Your task to perform on an android device: toggle show notifications on the lock screen Image 0: 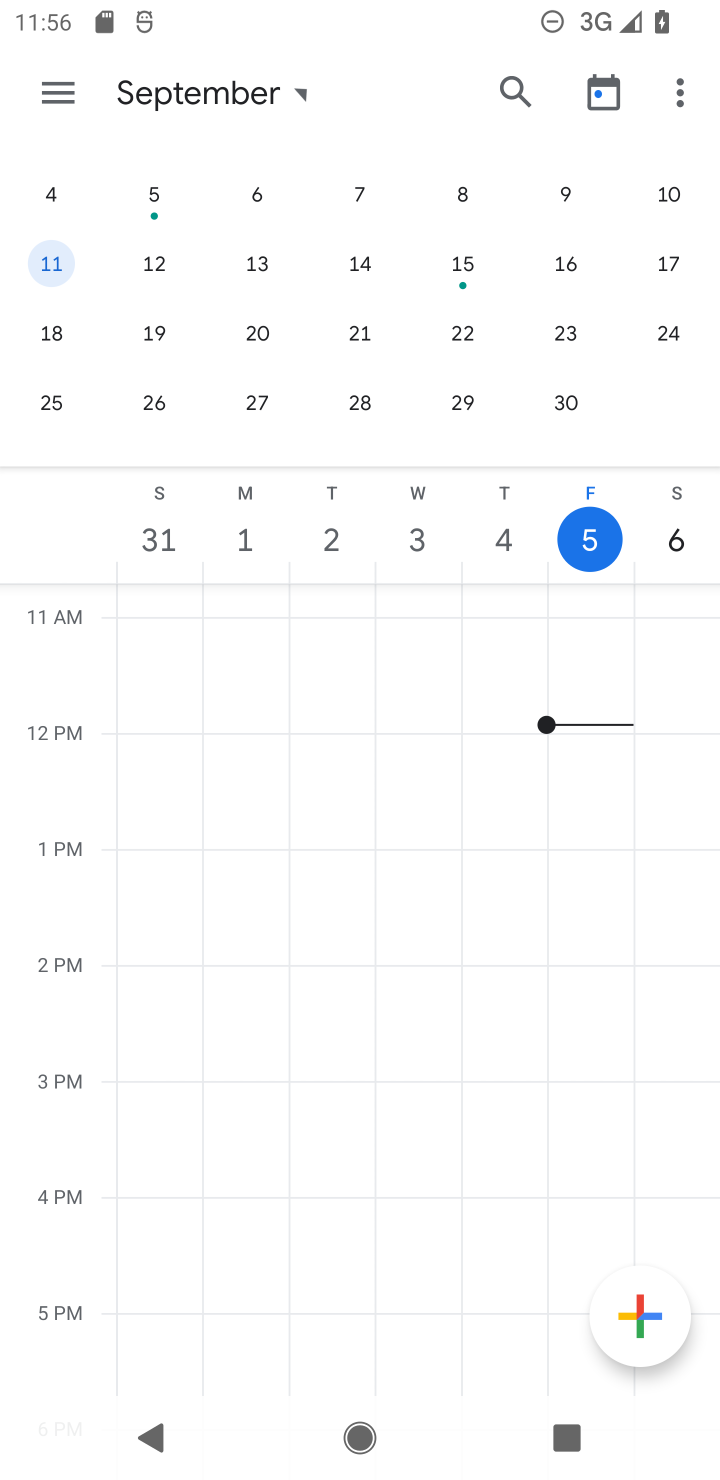
Step 0: press home button
Your task to perform on an android device: toggle show notifications on the lock screen Image 1: 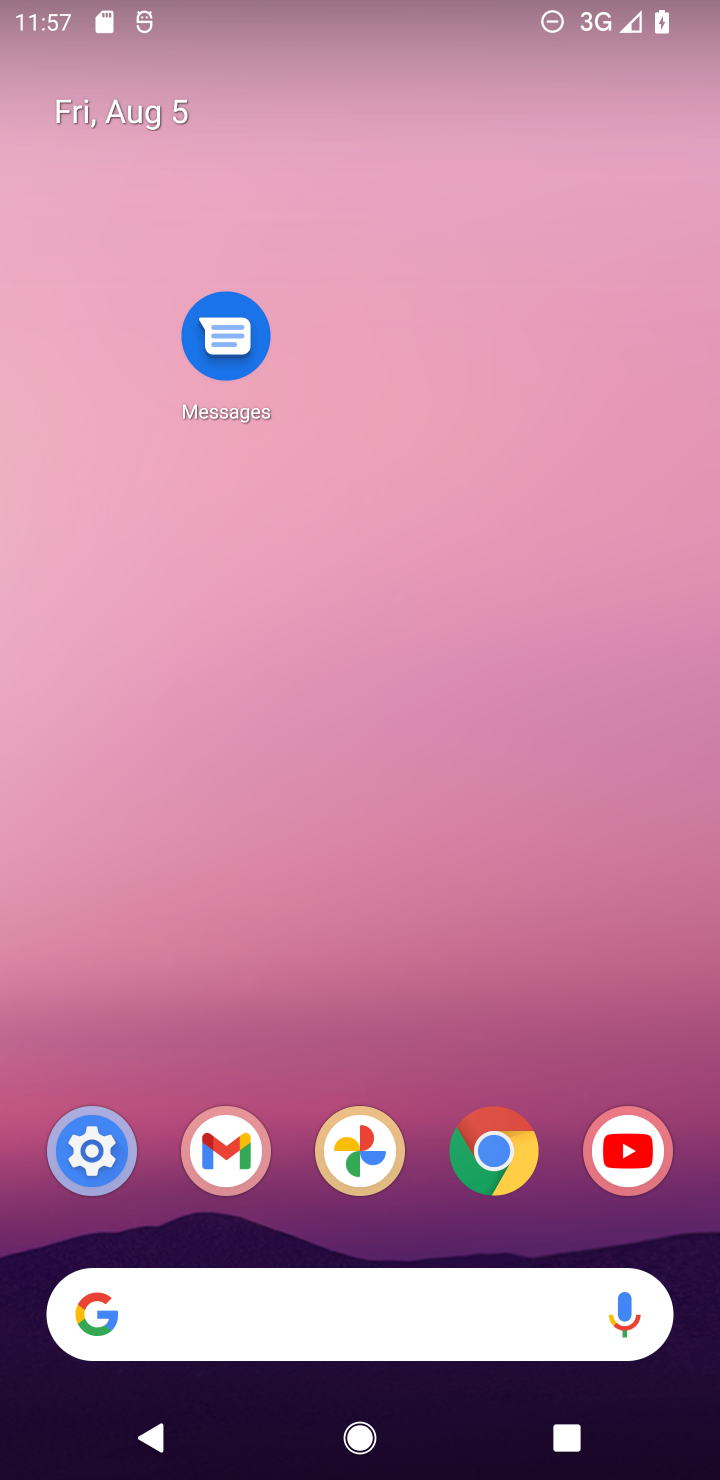
Step 1: click (225, 1187)
Your task to perform on an android device: toggle show notifications on the lock screen Image 2: 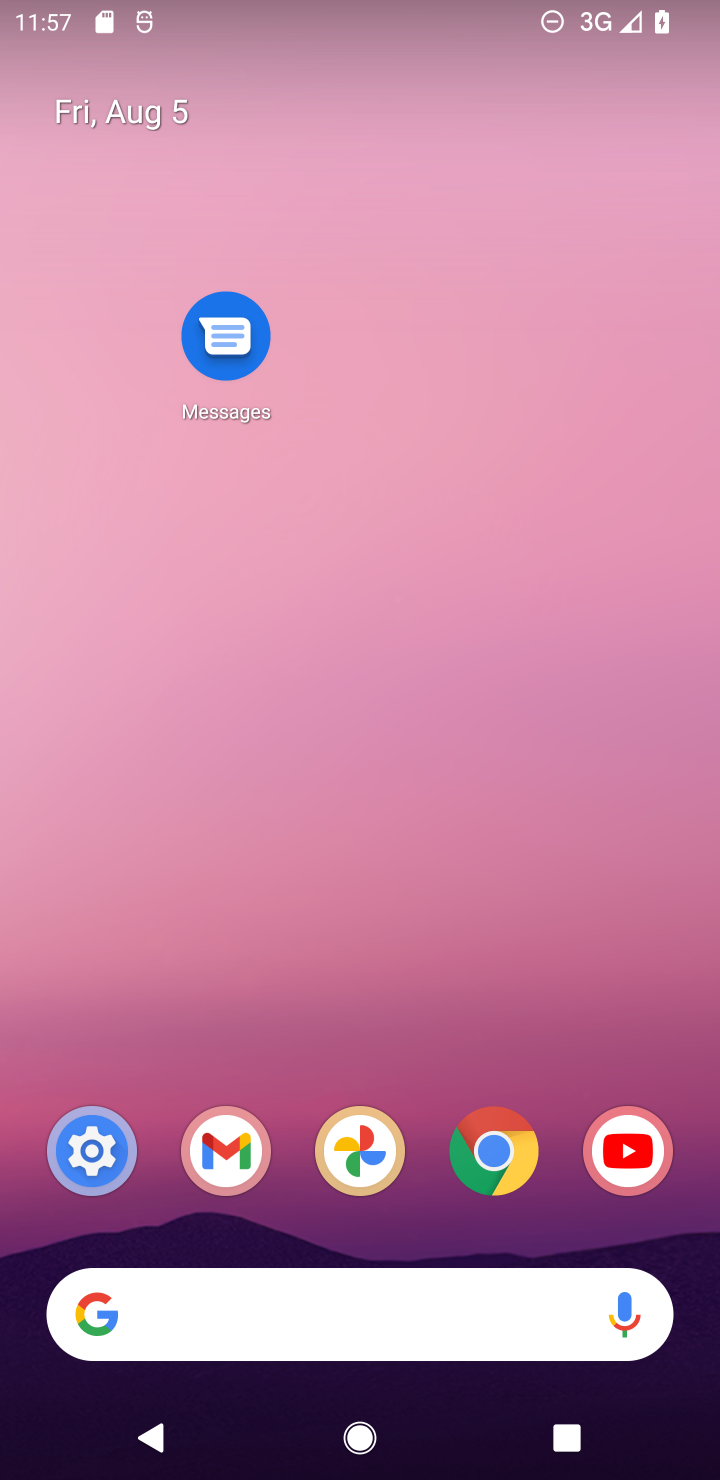
Step 2: click (91, 1159)
Your task to perform on an android device: toggle show notifications on the lock screen Image 3: 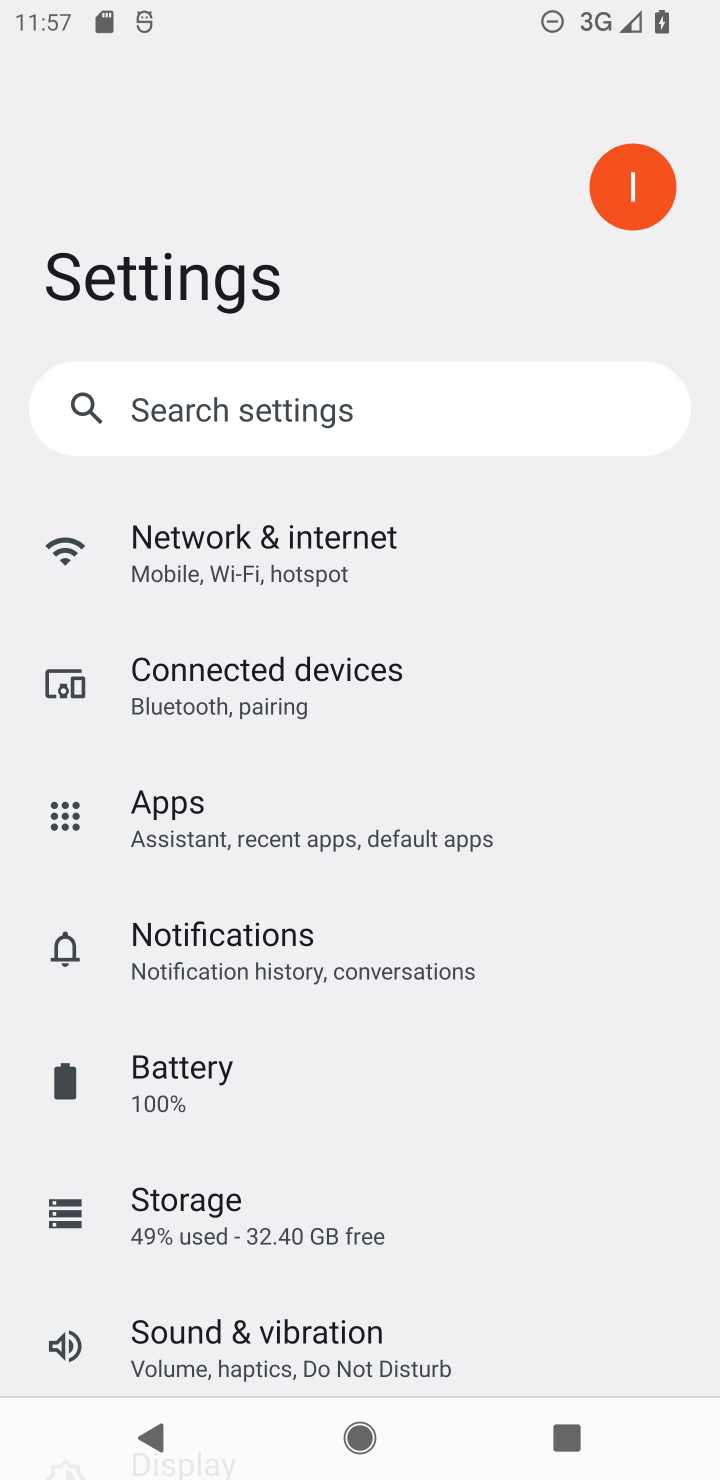
Step 3: click (245, 940)
Your task to perform on an android device: toggle show notifications on the lock screen Image 4: 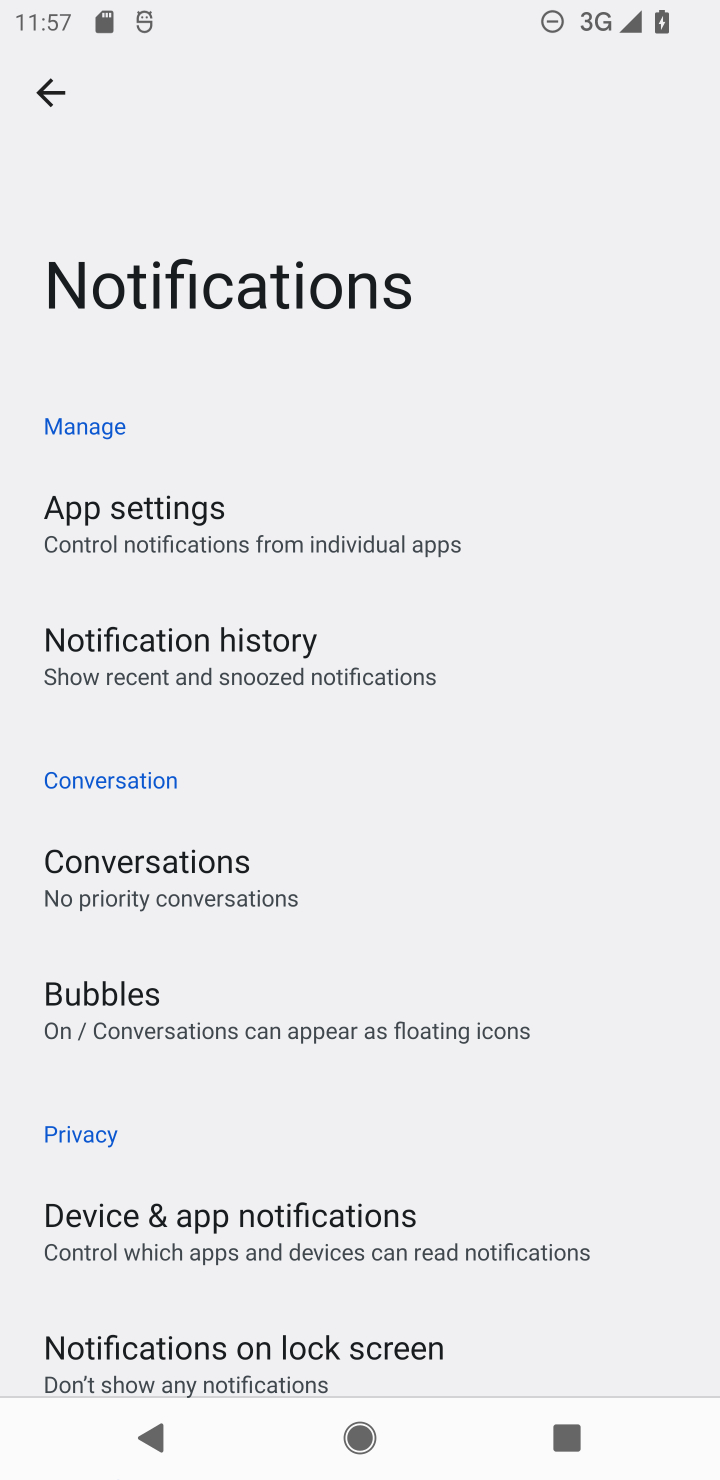
Step 4: click (202, 1347)
Your task to perform on an android device: toggle show notifications on the lock screen Image 5: 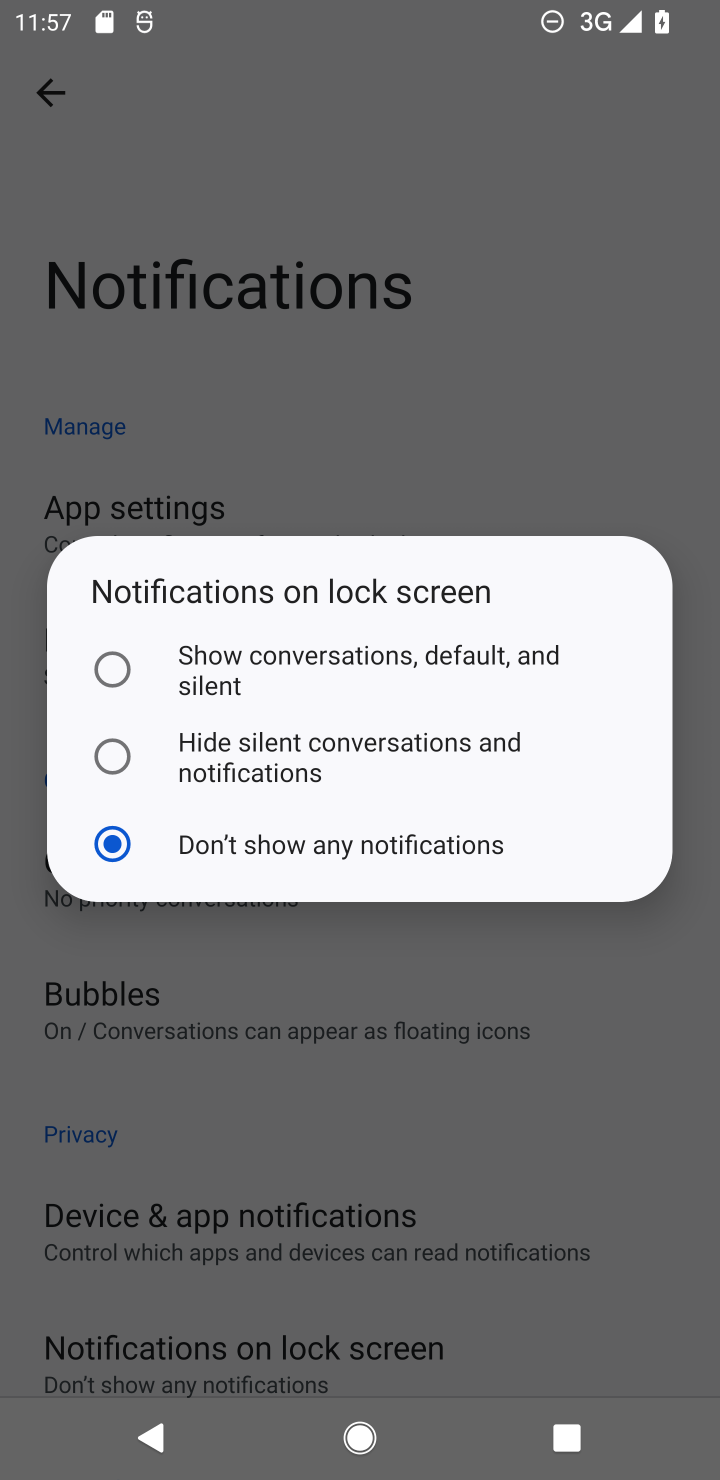
Step 5: click (111, 679)
Your task to perform on an android device: toggle show notifications on the lock screen Image 6: 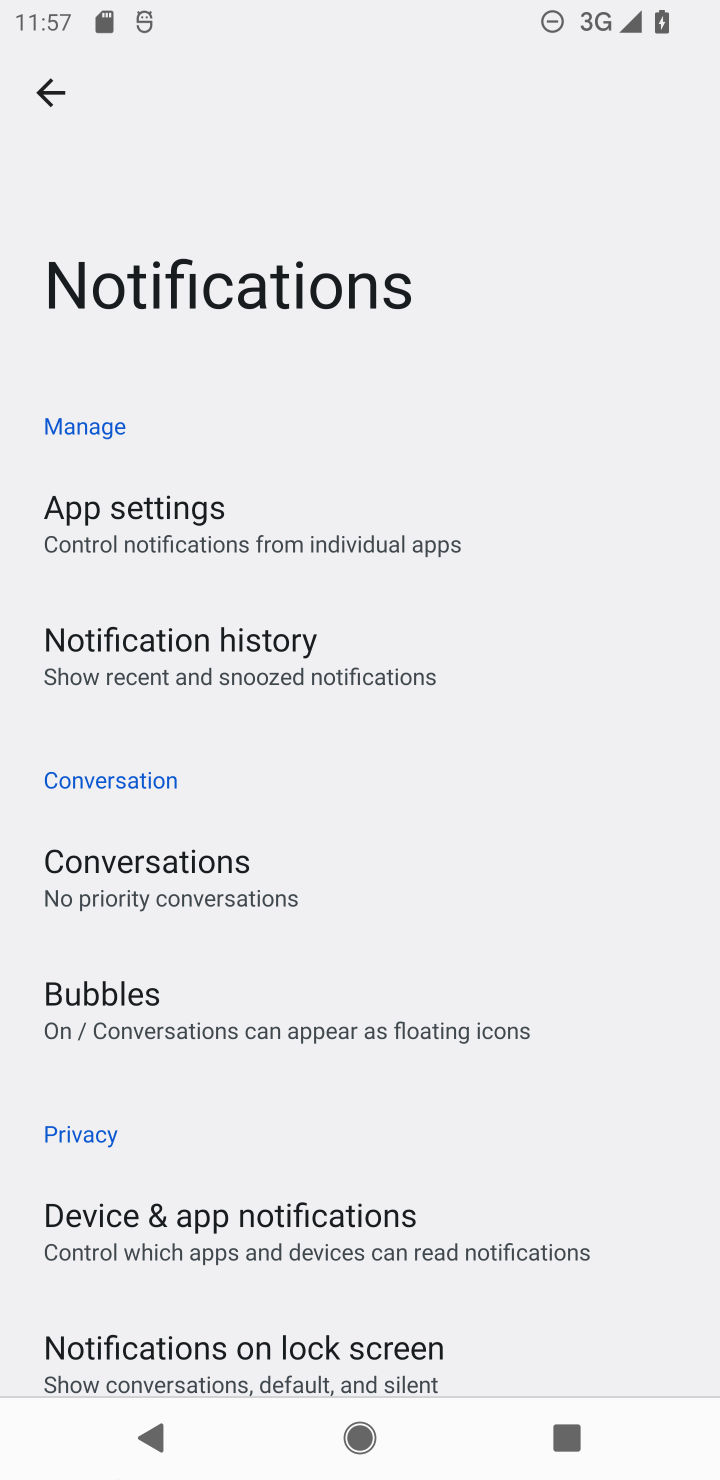
Step 6: task complete